Your task to perform on an android device: Turn off the flashlight Image 0: 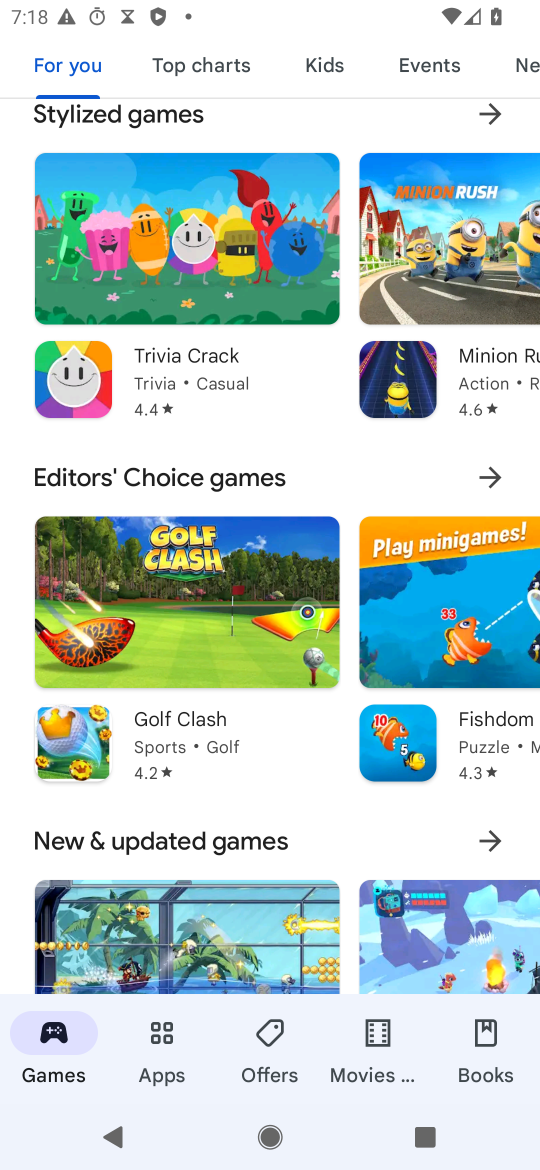
Step 0: press home button
Your task to perform on an android device: Turn off the flashlight Image 1: 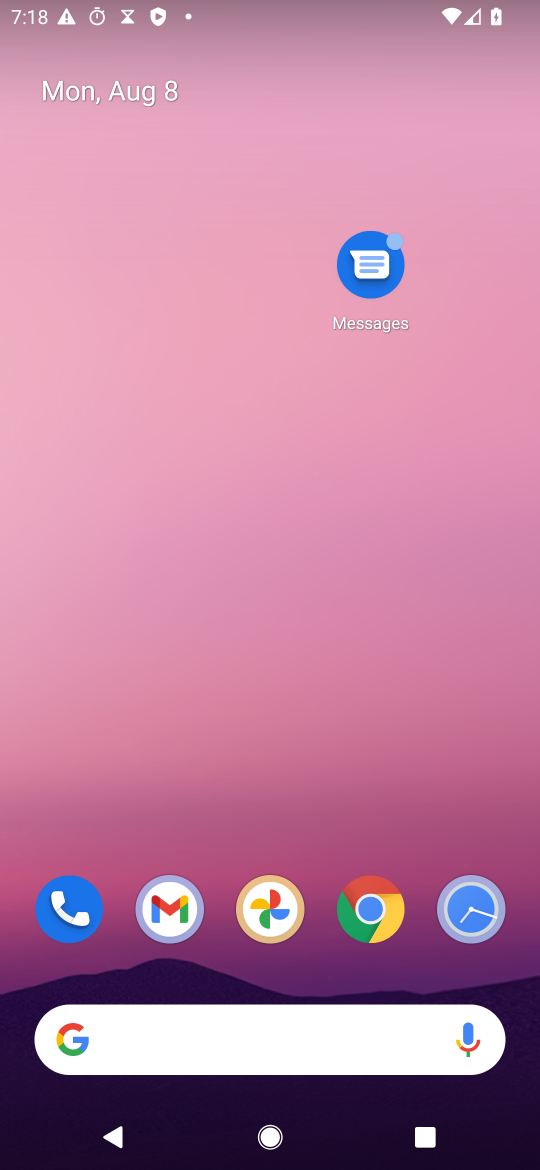
Step 1: task complete